Your task to perform on an android device: Open ESPN.com Image 0: 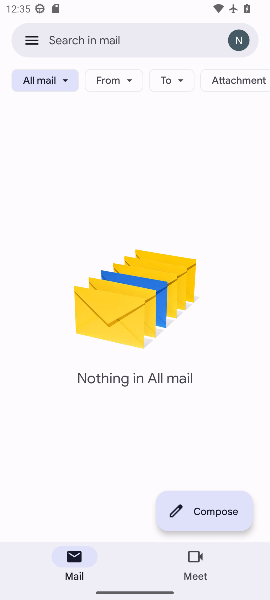
Step 0: press home button
Your task to perform on an android device: Open ESPN.com Image 1: 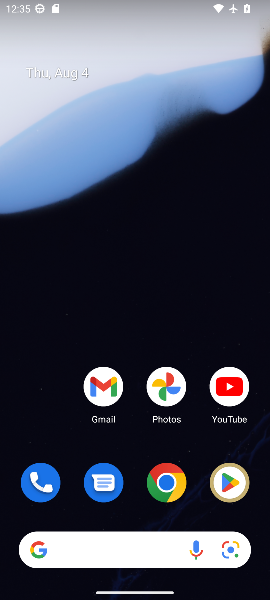
Step 1: click (163, 467)
Your task to perform on an android device: Open ESPN.com Image 2: 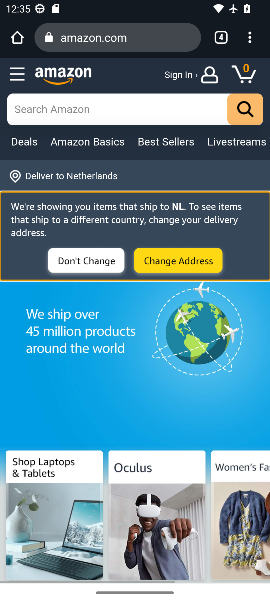
Step 2: click (219, 33)
Your task to perform on an android device: Open ESPN.com Image 3: 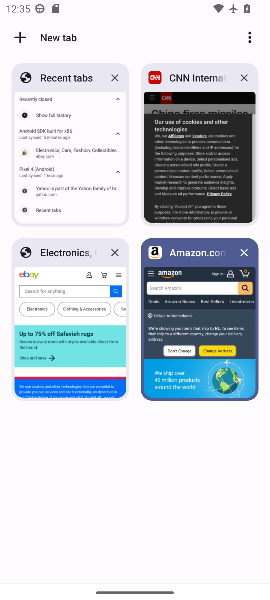
Step 3: click (20, 37)
Your task to perform on an android device: Open ESPN.com Image 4: 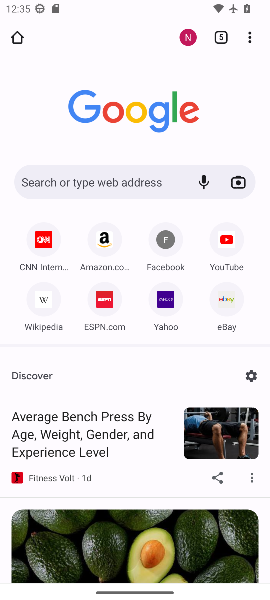
Step 4: click (117, 296)
Your task to perform on an android device: Open ESPN.com Image 5: 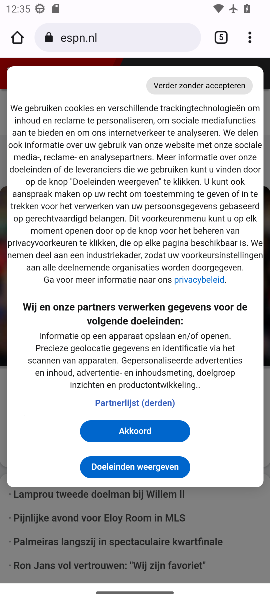
Step 5: task complete